Your task to perform on an android device: snooze an email in the gmail app Image 0: 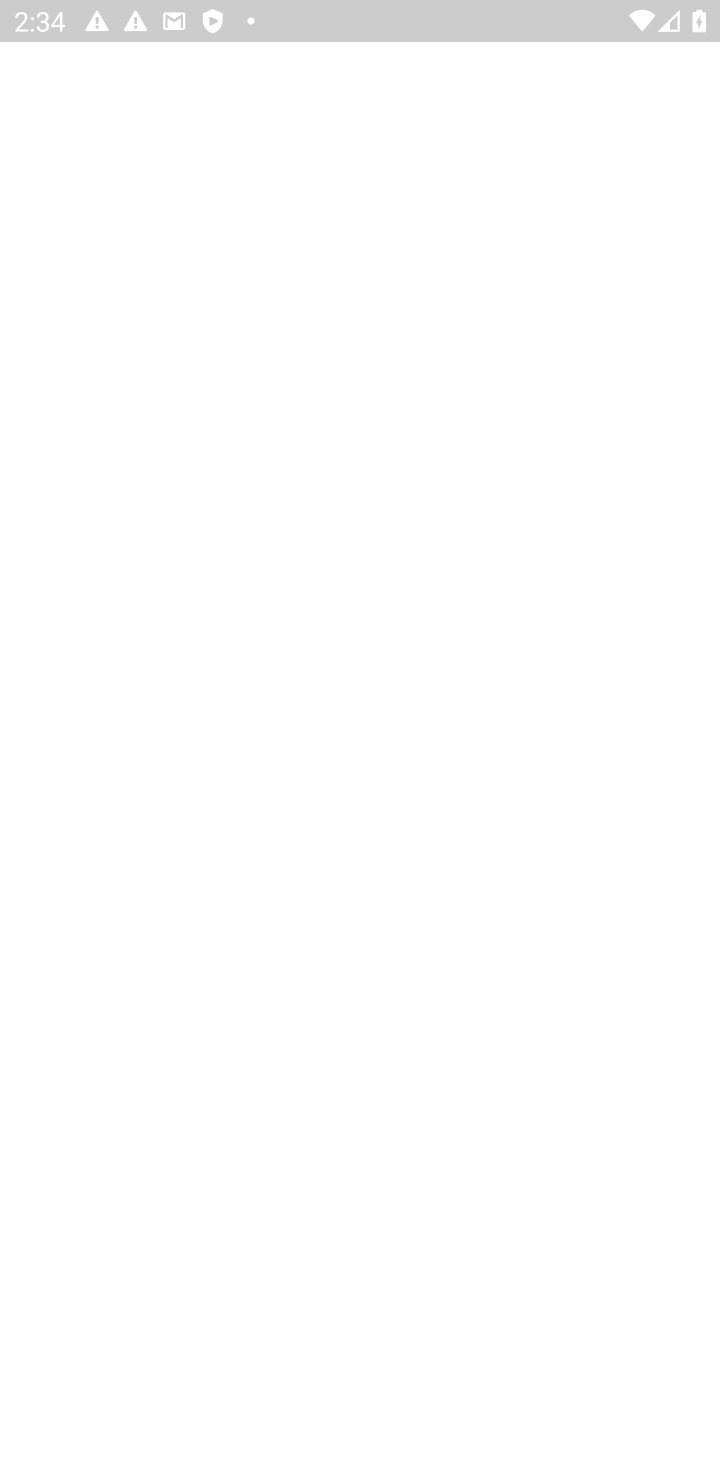
Step 0: press home button
Your task to perform on an android device: snooze an email in the gmail app Image 1: 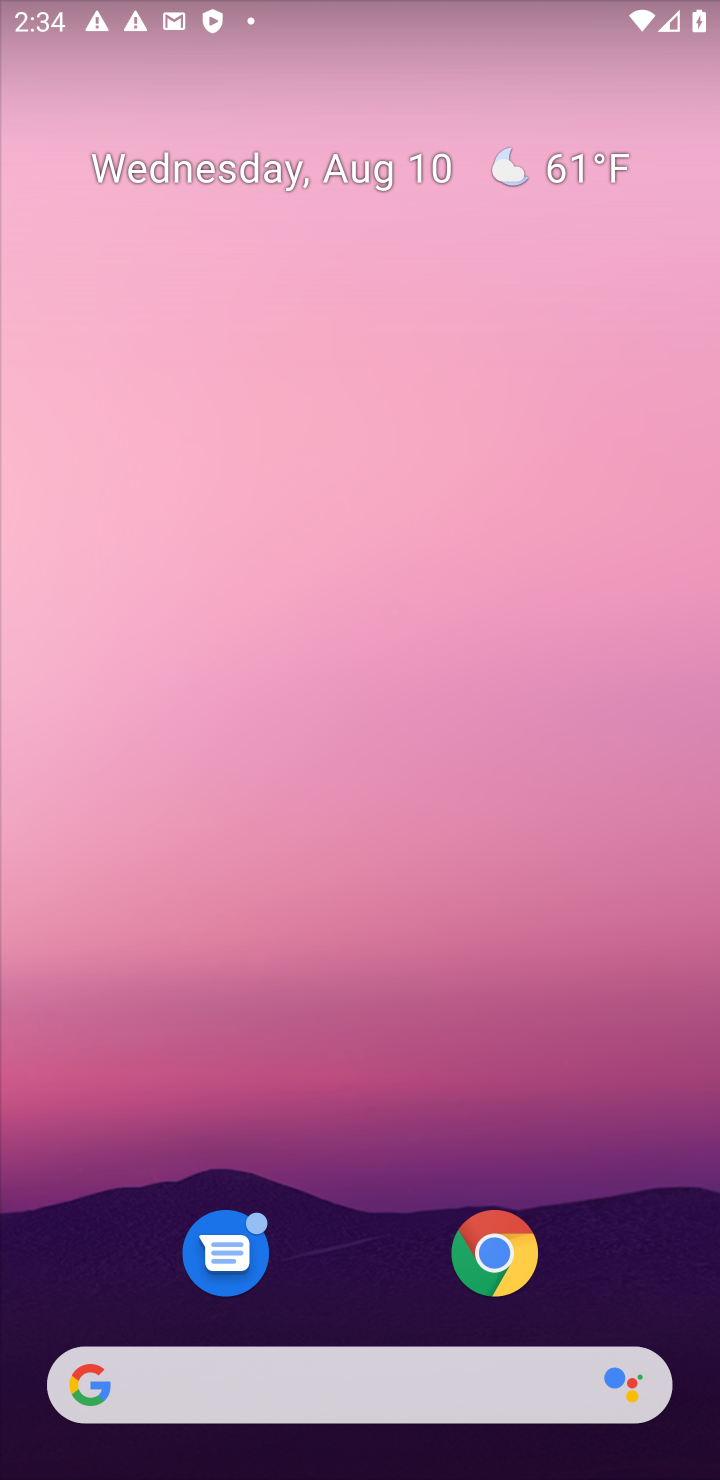
Step 1: drag from (420, 1191) to (364, 407)
Your task to perform on an android device: snooze an email in the gmail app Image 2: 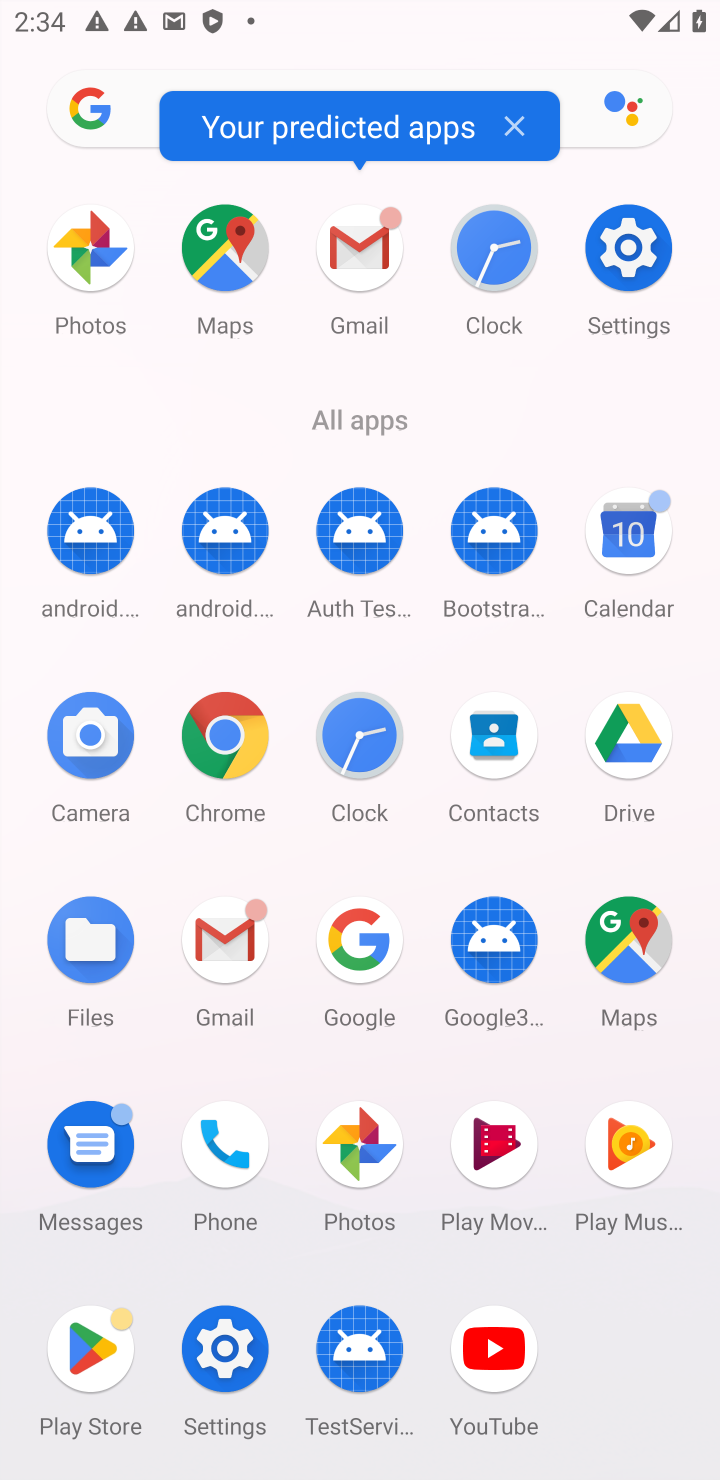
Step 2: click (223, 959)
Your task to perform on an android device: snooze an email in the gmail app Image 3: 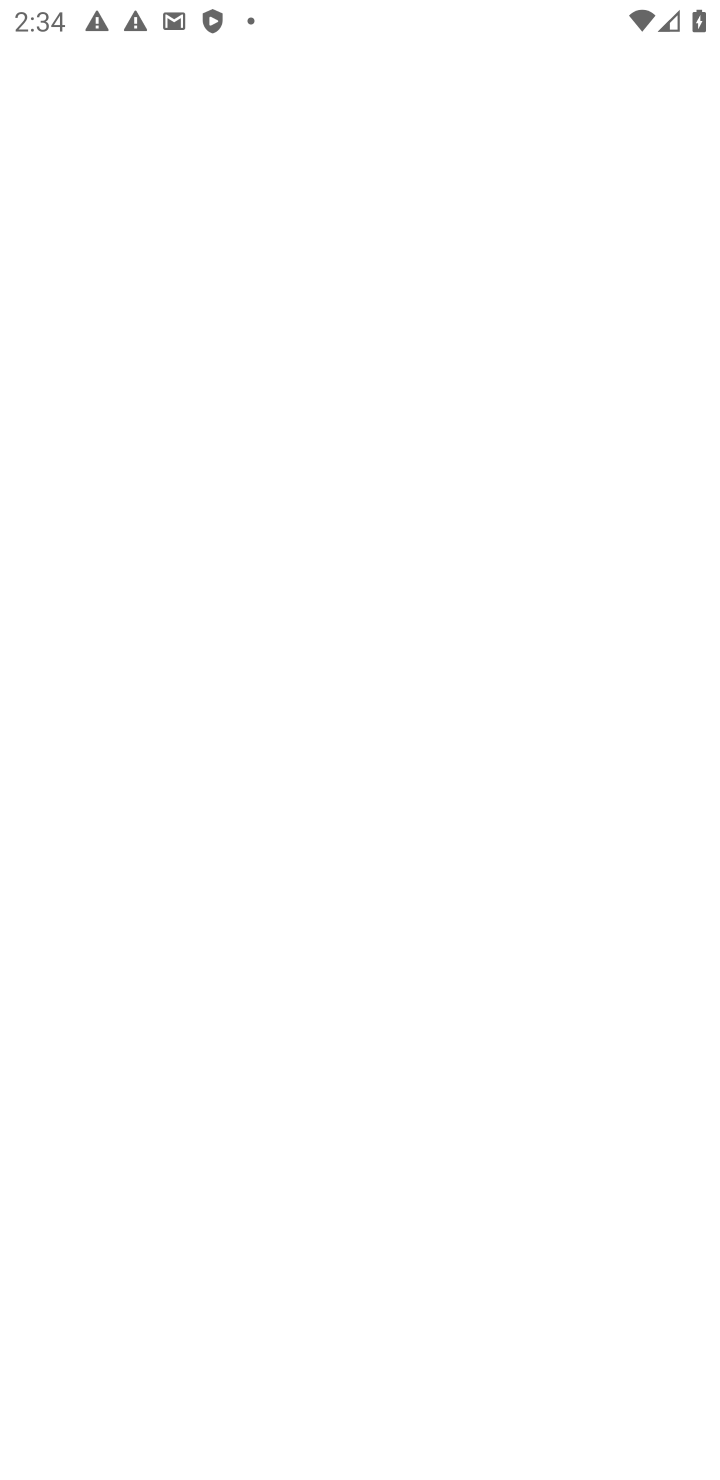
Step 3: task complete